Your task to perform on an android device: Go to location settings Image 0: 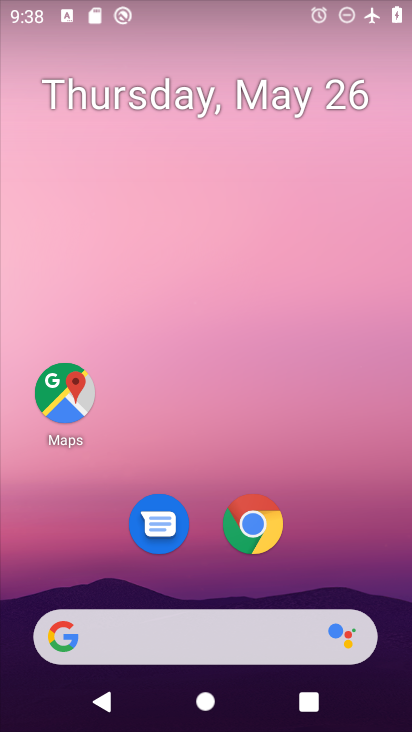
Step 0: drag from (337, 534) to (334, 25)
Your task to perform on an android device: Go to location settings Image 1: 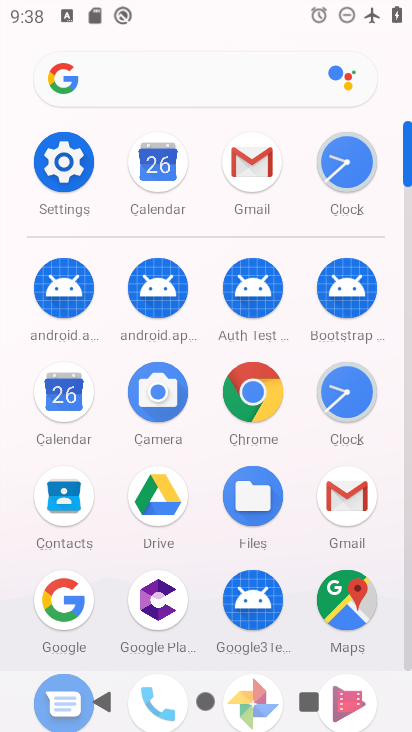
Step 1: click (69, 154)
Your task to perform on an android device: Go to location settings Image 2: 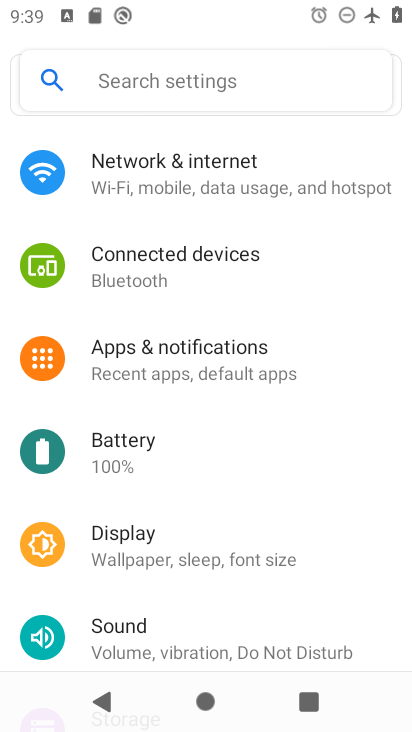
Step 2: drag from (232, 542) to (253, 159)
Your task to perform on an android device: Go to location settings Image 3: 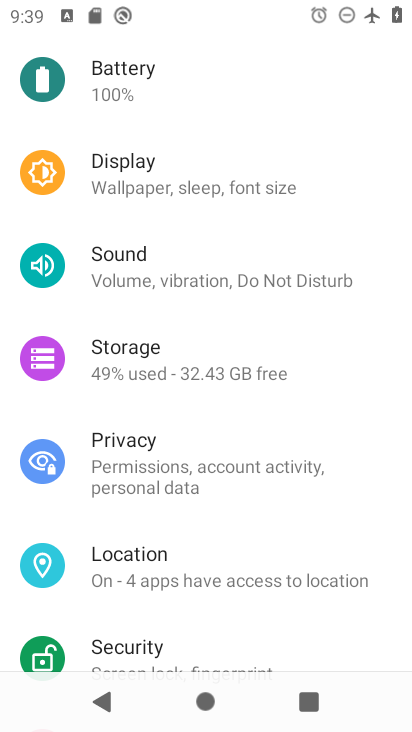
Step 3: click (213, 551)
Your task to perform on an android device: Go to location settings Image 4: 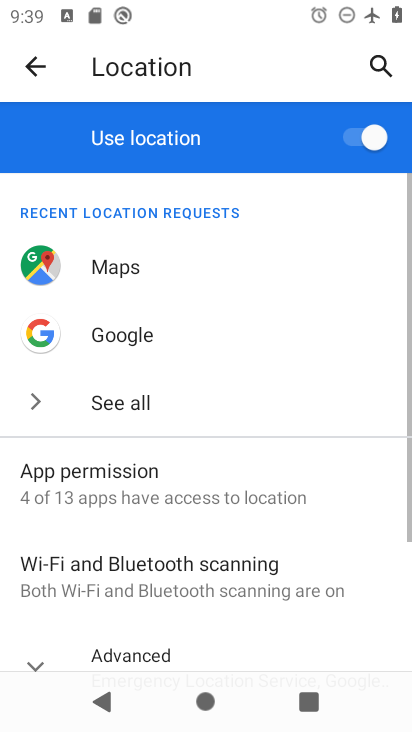
Step 4: task complete